Your task to perform on an android device: Go to wifi settings Image 0: 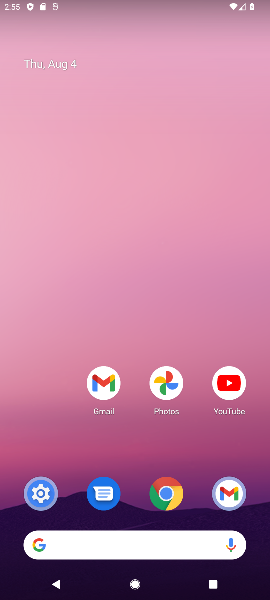
Step 0: drag from (147, 538) to (163, 234)
Your task to perform on an android device: Go to wifi settings Image 1: 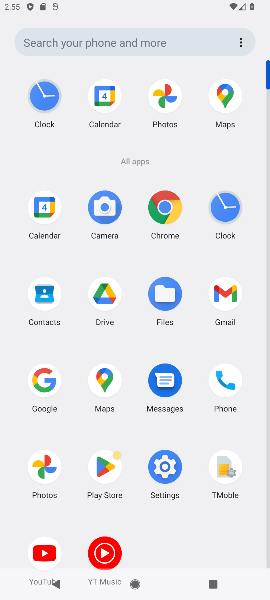
Step 1: click (175, 470)
Your task to perform on an android device: Go to wifi settings Image 2: 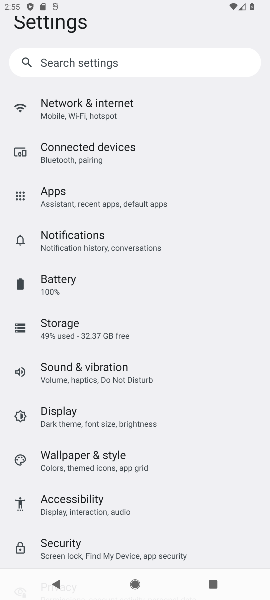
Step 2: click (62, 103)
Your task to perform on an android device: Go to wifi settings Image 3: 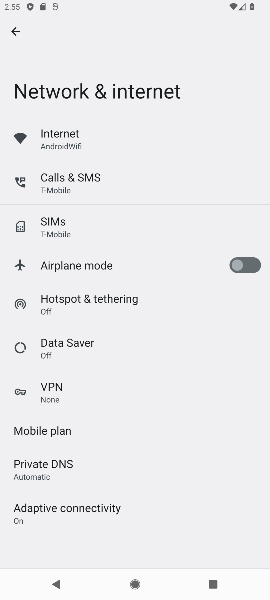
Step 3: click (76, 139)
Your task to perform on an android device: Go to wifi settings Image 4: 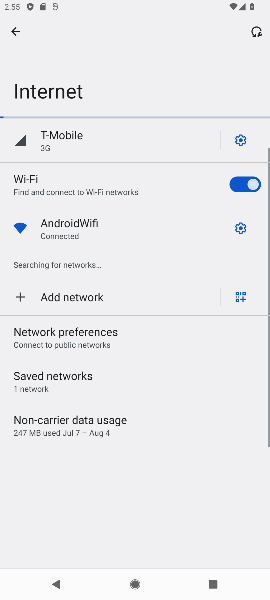
Step 4: click (73, 188)
Your task to perform on an android device: Go to wifi settings Image 5: 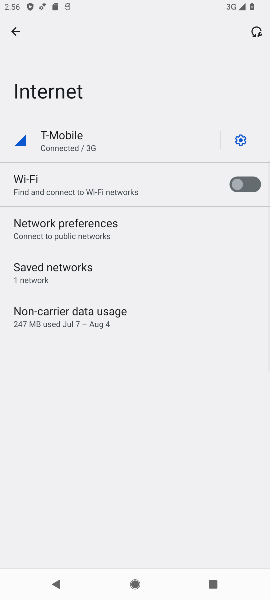
Step 5: click (245, 177)
Your task to perform on an android device: Go to wifi settings Image 6: 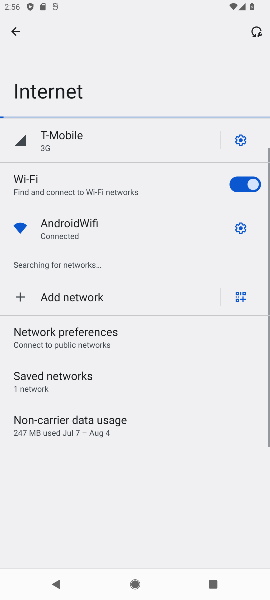
Step 6: click (237, 222)
Your task to perform on an android device: Go to wifi settings Image 7: 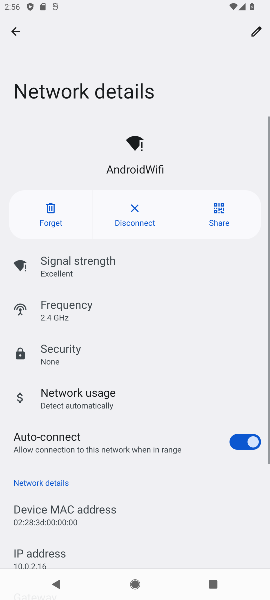
Step 7: task complete